Your task to perform on an android device: Do I have any events tomorrow? Image 0: 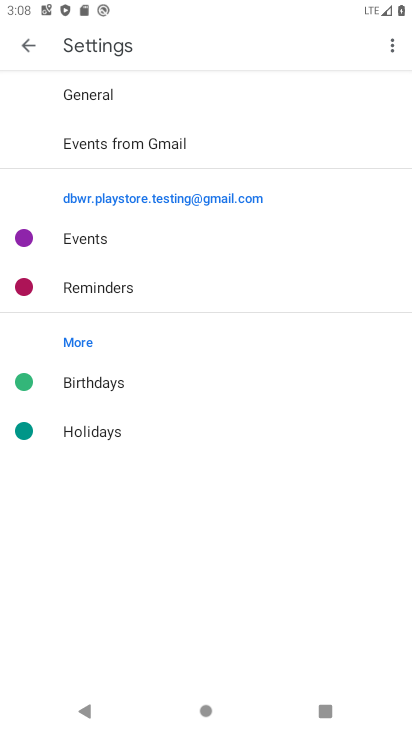
Step 0: press home button
Your task to perform on an android device: Do I have any events tomorrow? Image 1: 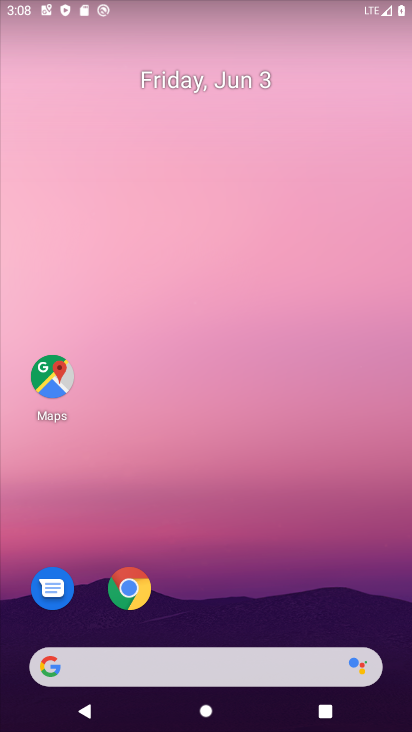
Step 1: drag from (5, 673) to (298, 65)
Your task to perform on an android device: Do I have any events tomorrow? Image 2: 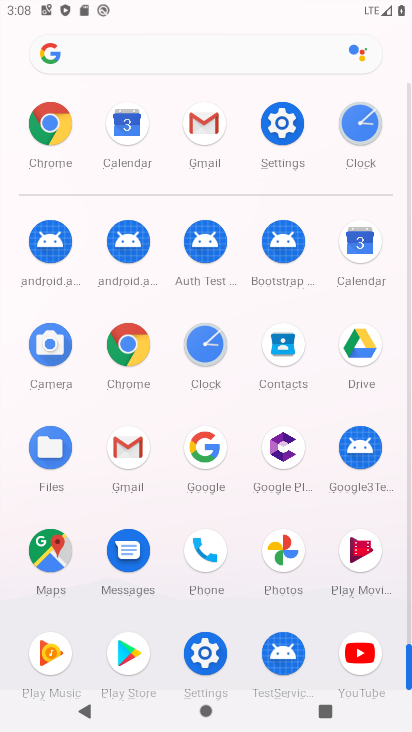
Step 2: click (208, 657)
Your task to perform on an android device: Do I have any events tomorrow? Image 3: 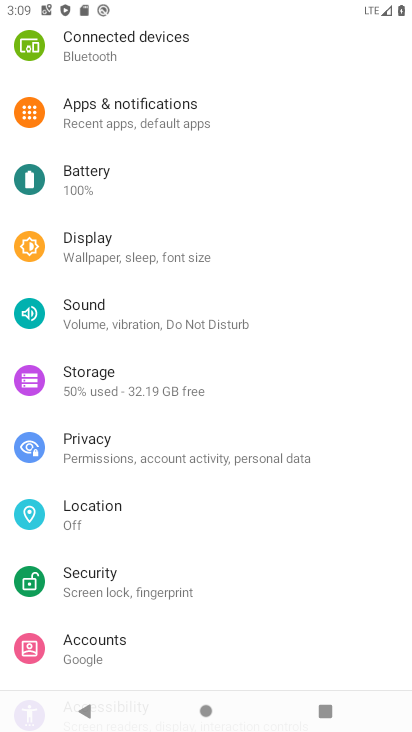
Step 3: task complete